Your task to perform on an android device: Do I have any events this weekend? Image 0: 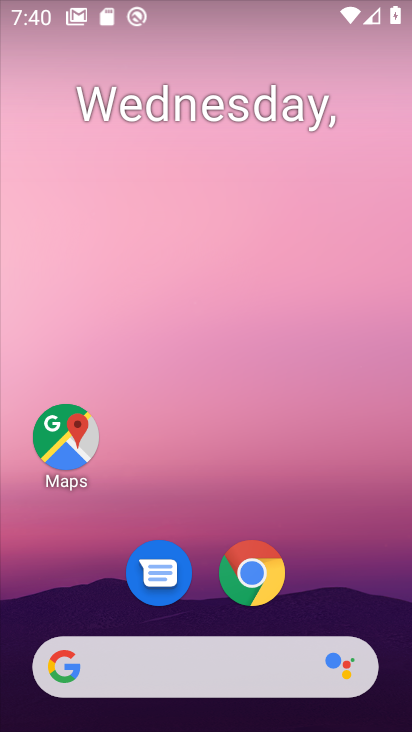
Step 0: drag from (318, 581) to (332, 10)
Your task to perform on an android device: Do I have any events this weekend? Image 1: 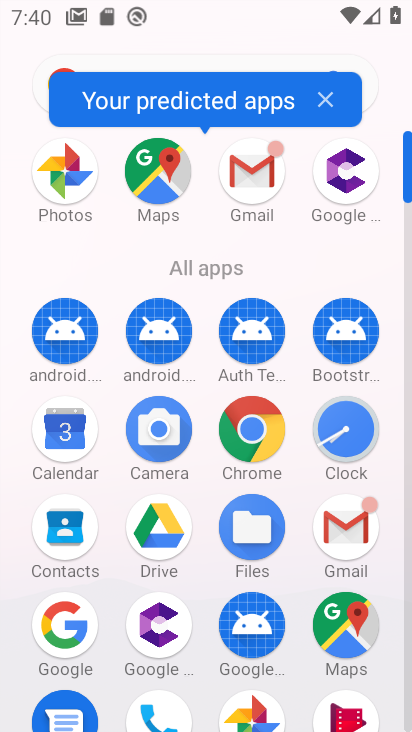
Step 1: click (59, 433)
Your task to perform on an android device: Do I have any events this weekend? Image 2: 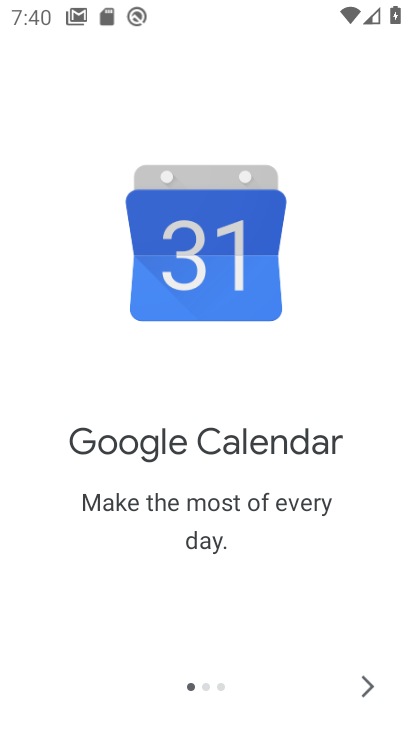
Step 2: click (363, 692)
Your task to perform on an android device: Do I have any events this weekend? Image 3: 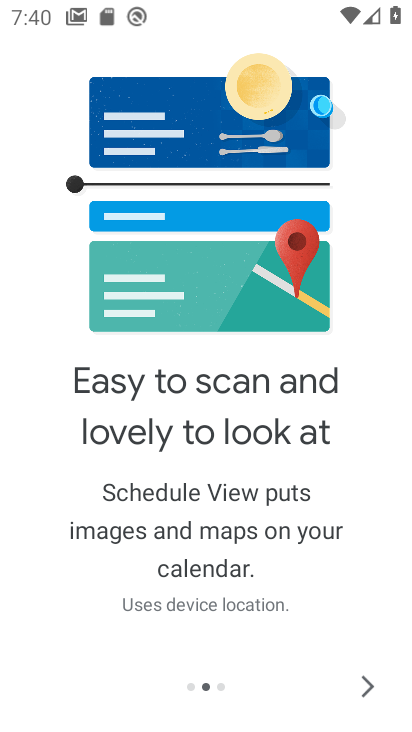
Step 3: click (363, 692)
Your task to perform on an android device: Do I have any events this weekend? Image 4: 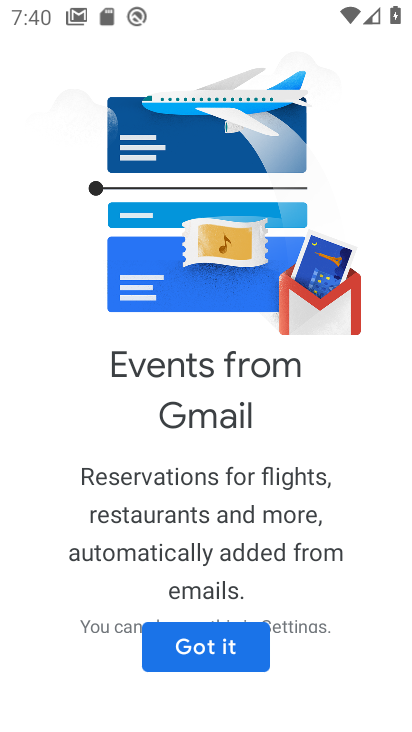
Step 4: click (212, 654)
Your task to perform on an android device: Do I have any events this weekend? Image 5: 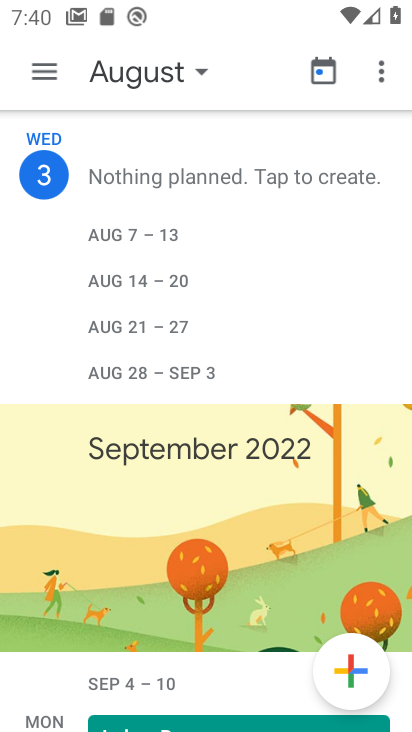
Step 5: click (196, 74)
Your task to perform on an android device: Do I have any events this weekend? Image 6: 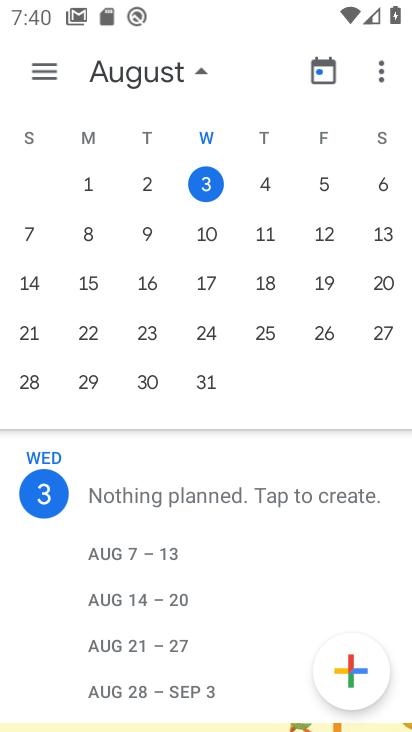
Step 6: click (328, 182)
Your task to perform on an android device: Do I have any events this weekend? Image 7: 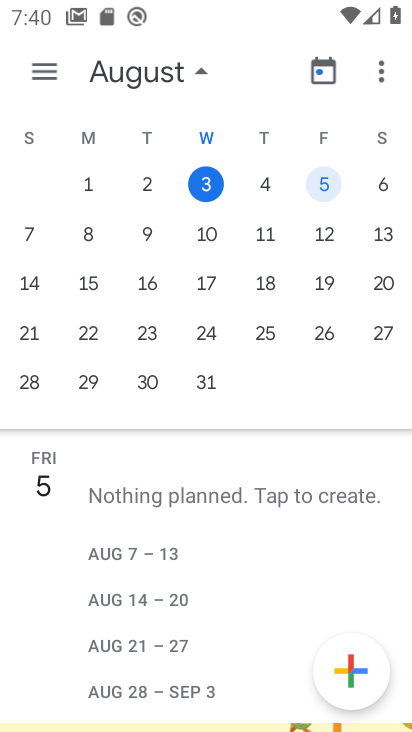
Step 7: click (39, 70)
Your task to perform on an android device: Do I have any events this weekend? Image 8: 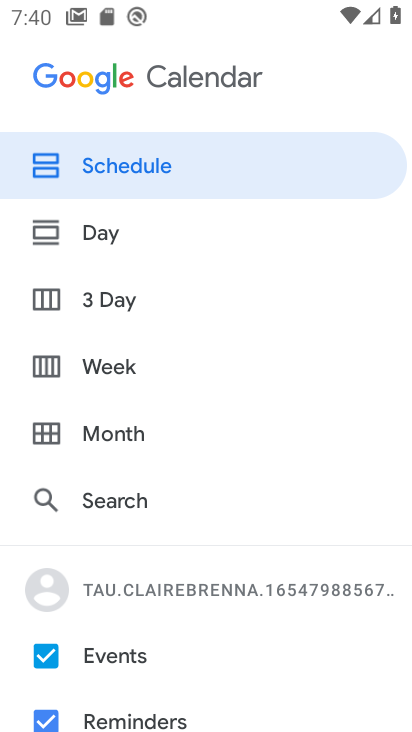
Step 8: click (61, 304)
Your task to perform on an android device: Do I have any events this weekend? Image 9: 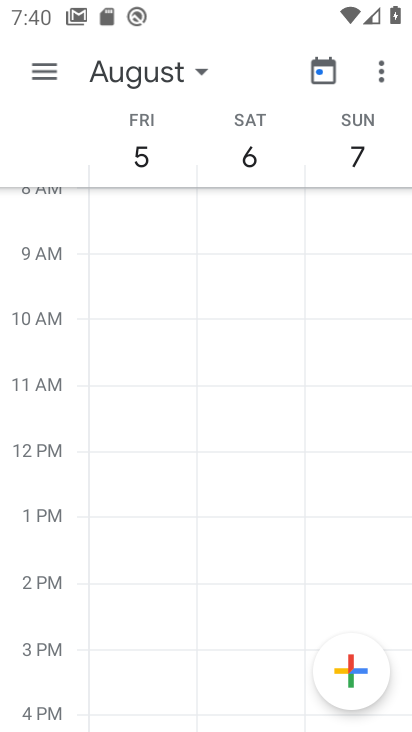
Step 9: click (41, 76)
Your task to perform on an android device: Do I have any events this weekend? Image 10: 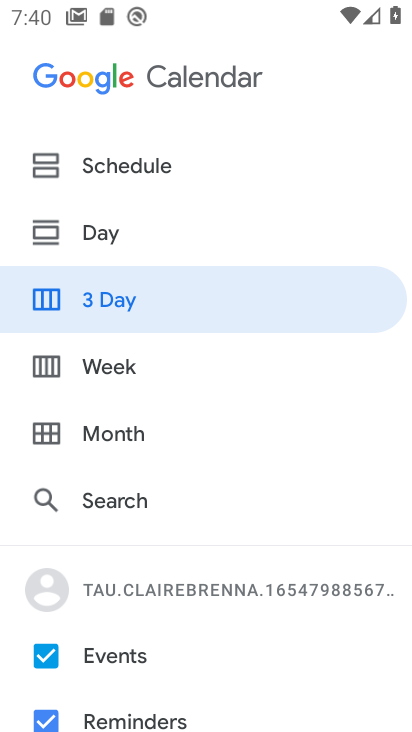
Step 10: drag from (92, 616) to (120, 312)
Your task to perform on an android device: Do I have any events this weekend? Image 11: 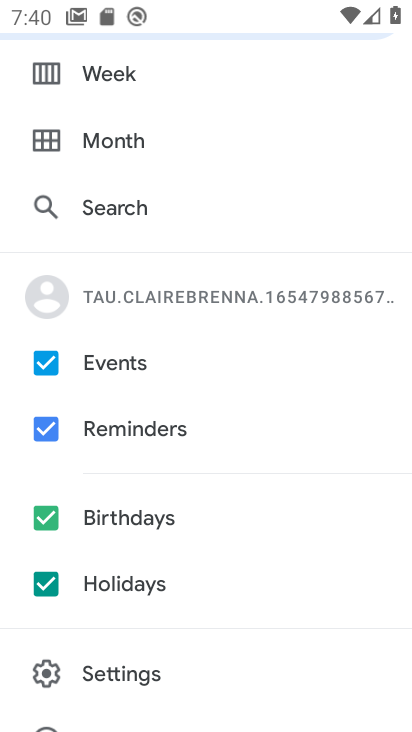
Step 11: click (43, 428)
Your task to perform on an android device: Do I have any events this weekend? Image 12: 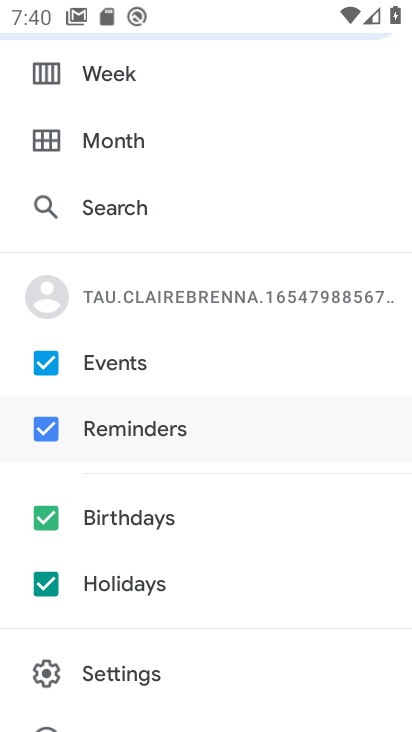
Step 12: click (42, 519)
Your task to perform on an android device: Do I have any events this weekend? Image 13: 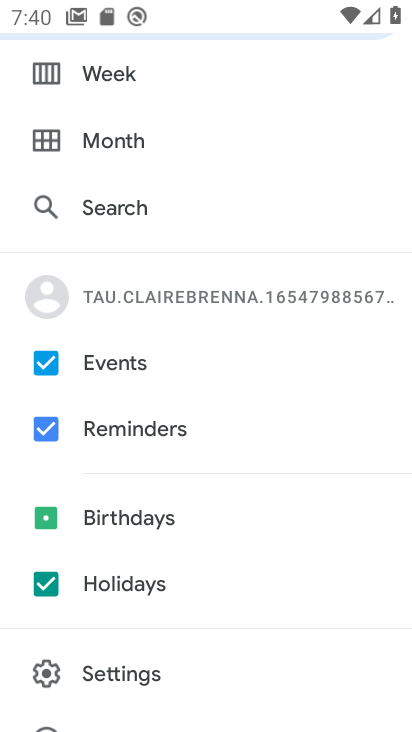
Step 13: click (45, 577)
Your task to perform on an android device: Do I have any events this weekend? Image 14: 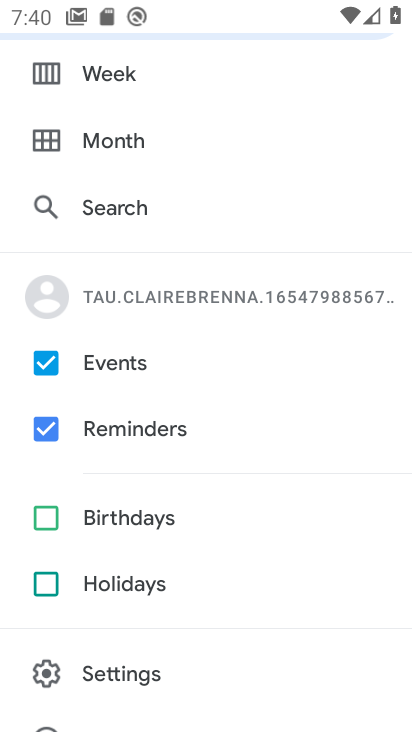
Step 14: drag from (223, 201) to (231, 473)
Your task to perform on an android device: Do I have any events this weekend? Image 15: 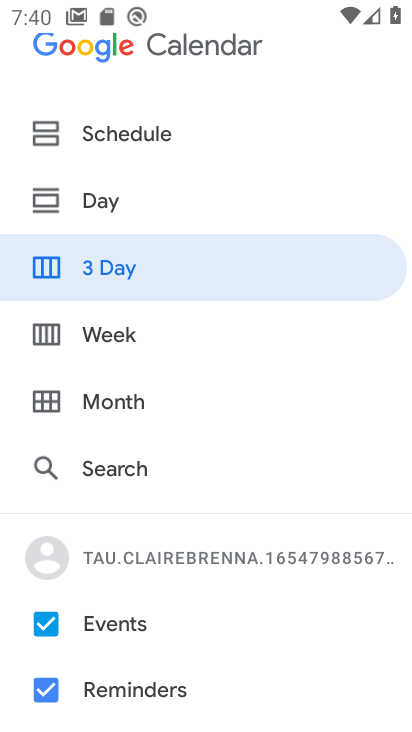
Step 15: click (30, 691)
Your task to perform on an android device: Do I have any events this weekend? Image 16: 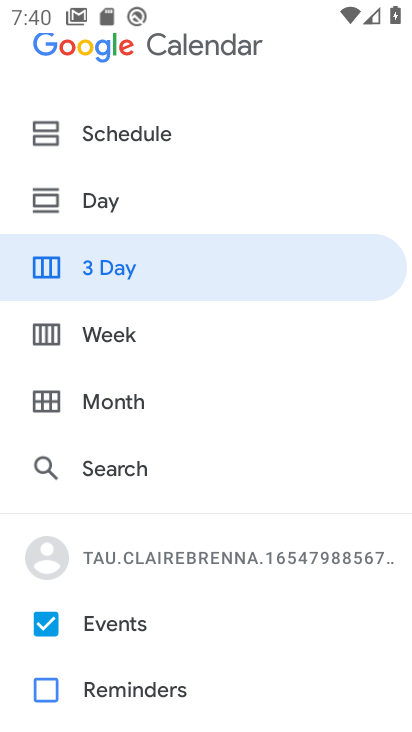
Step 16: click (48, 264)
Your task to perform on an android device: Do I have any events this weekend? Image 17: 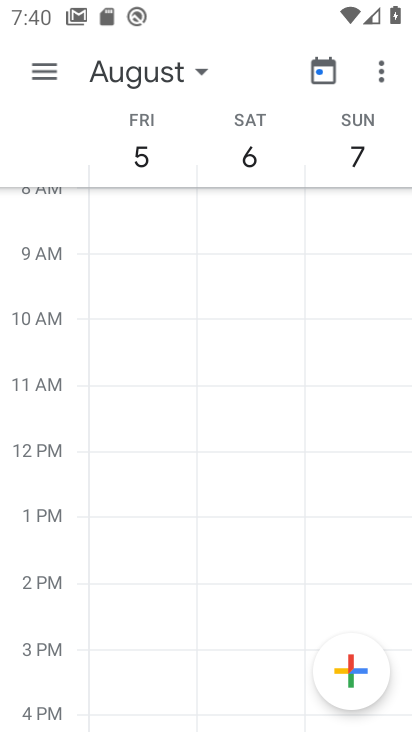
Step 17: task complete